Your task to perform on an android device: manage bookmarks in the chrome app Image 0: 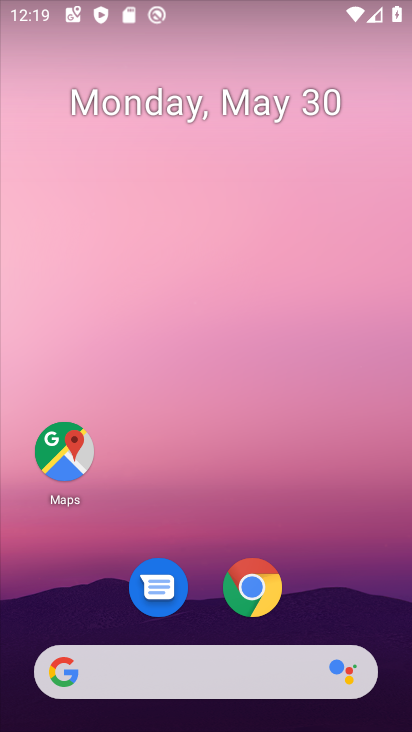
Step 0: click (251, 599)
Your task to perform on an android device: manage bookmarks in the chrome app Image 1: 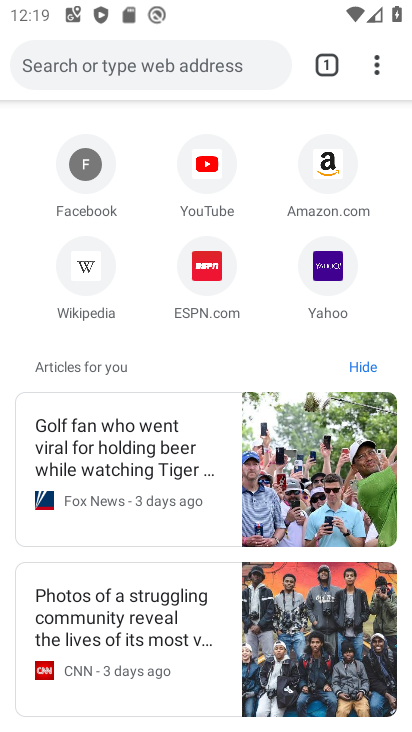
Step 1: click (380, 62)
Your task to perform on an android device: manage bookmarks in the chrome app Image 2: 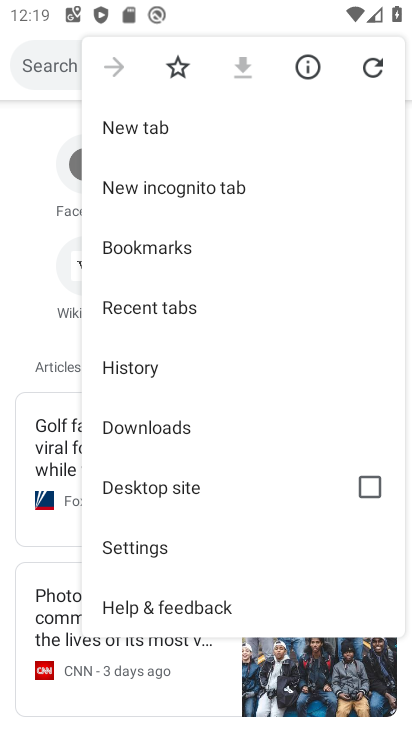
Step 2: click (156, 241)
Your task to perform on an android device: manage bookmarks in the chrome app Image 3: 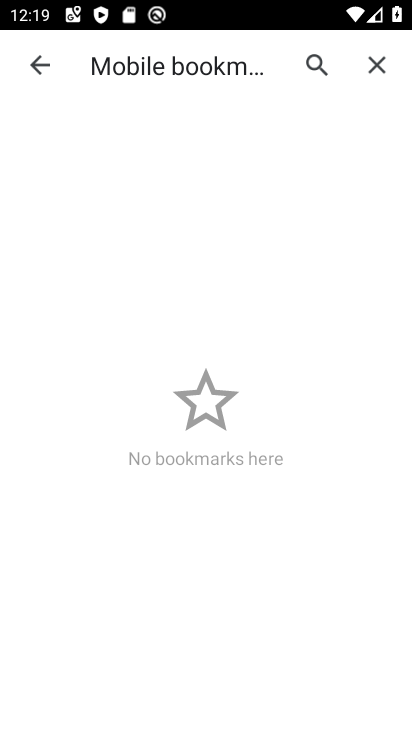
Step 3: task complete